Your task to perform on an android device: Open Maps and search for coffee Image 0: 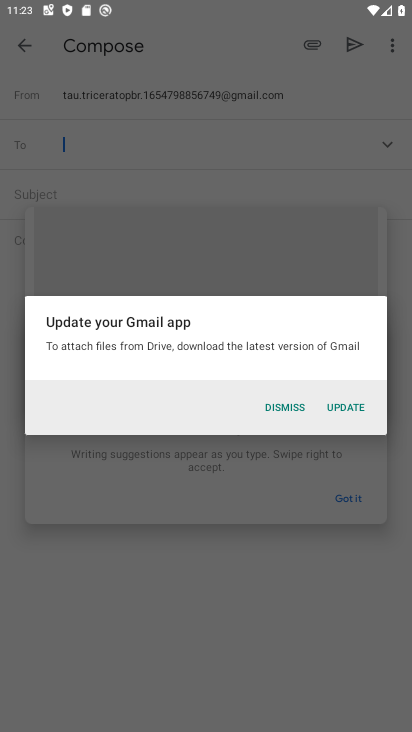
Step 0: press home button
Your task to perform on an android device: Open Maps and search for coffee Image 1: 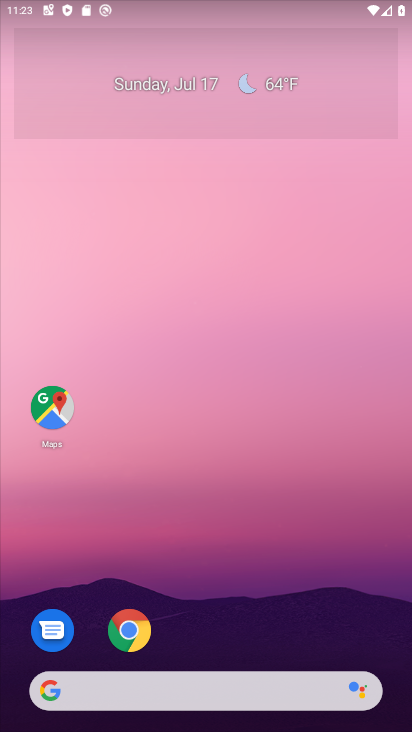
Step 1: click (53, 412)
Your task to perform on an android device: Open Maps and search for coffee Image 2: 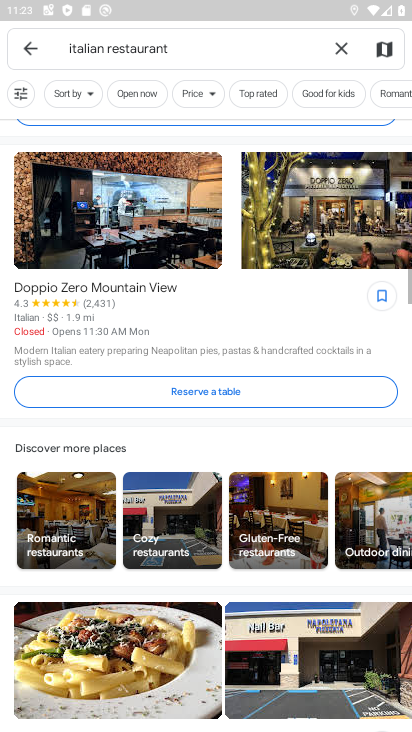
Step 2: click (340, 45)
Your task to perform on an android device: Open Maps and search for coffee Image 3: 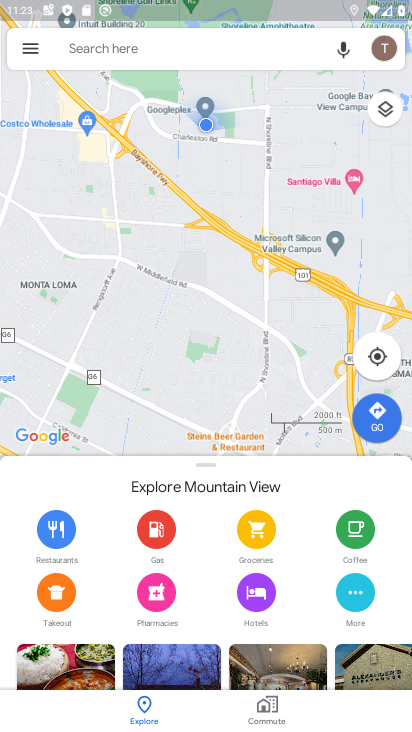
Step 3: click (105, 48)
Your task to perform on an android device: Open Maps and search for coffee Image 4: 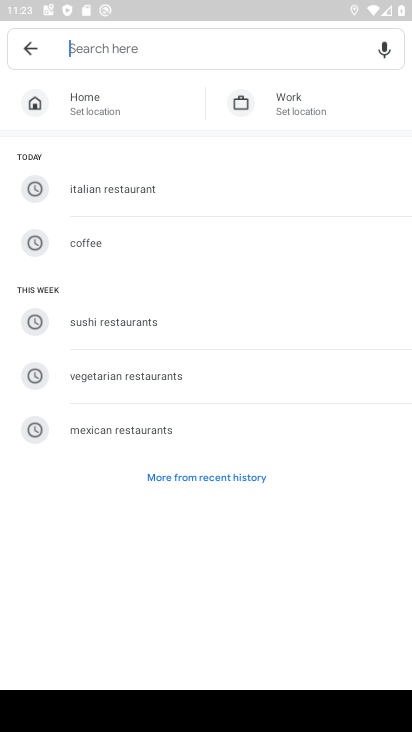
Step 4: type "coffee"
Your task to perform on an android device: Open Maps and search for coffee Image 5: 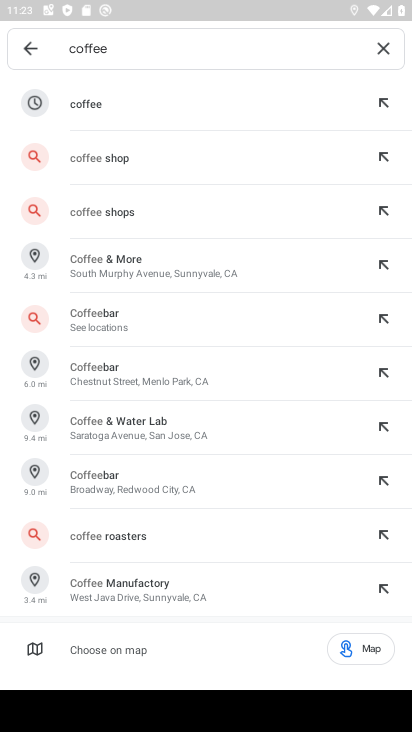
Step 5: click (89, 102)
Your task to perform on an android device: Open Maps and search for coffee Image 6: 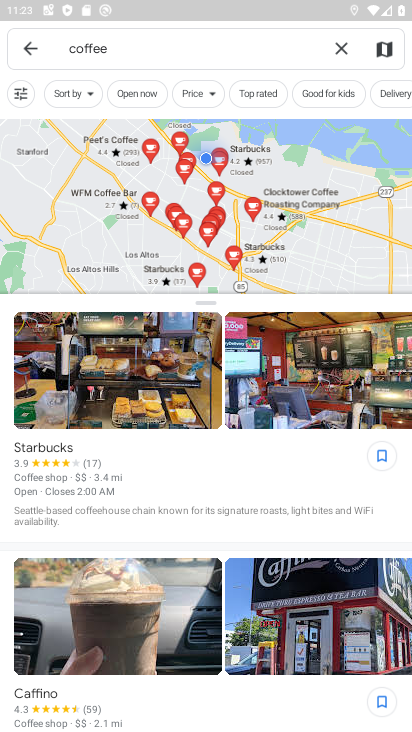
Step 6: task complete